Your task to perform on an android device: What's the weather? Image 0: 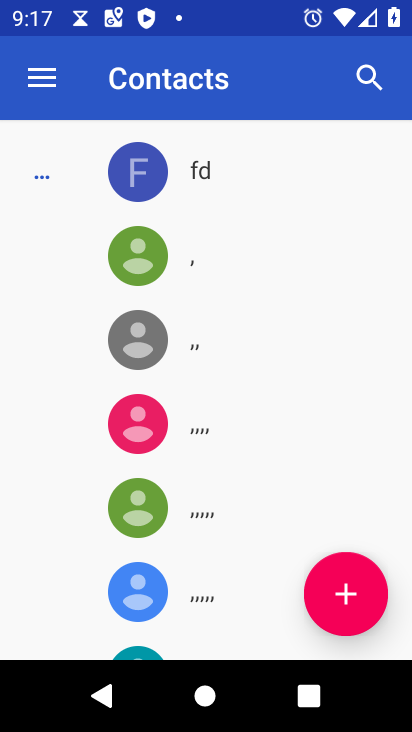
Step 0: press home button
Your task to perform on an android device: What's the weather? Image 1: 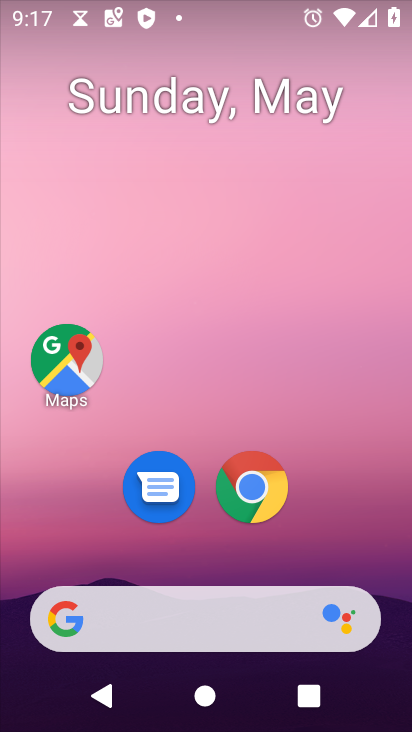
Step 1: click (83, 625)
Your task to perform on an android device: What's the weather? Image 2: 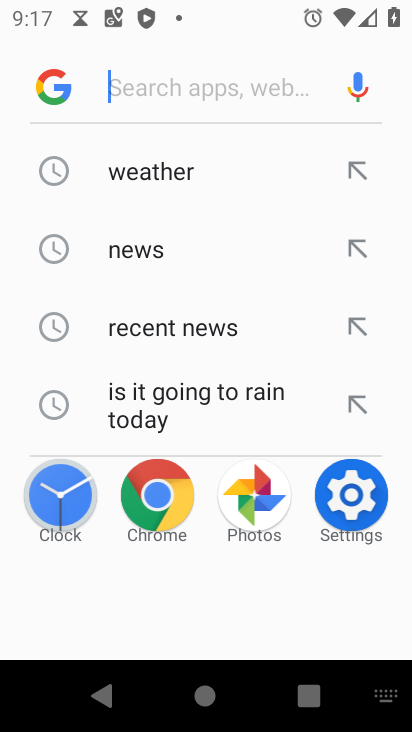
Step 2: click (61, 63)
Your task to perform on an android device: What's the weather? Image 3: 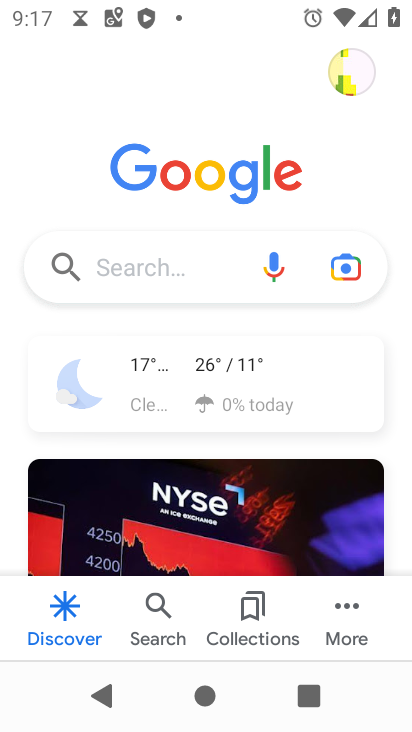
Step 3: click (189, 378)
Your task to perform on an android device: What's the weather? Image 4: 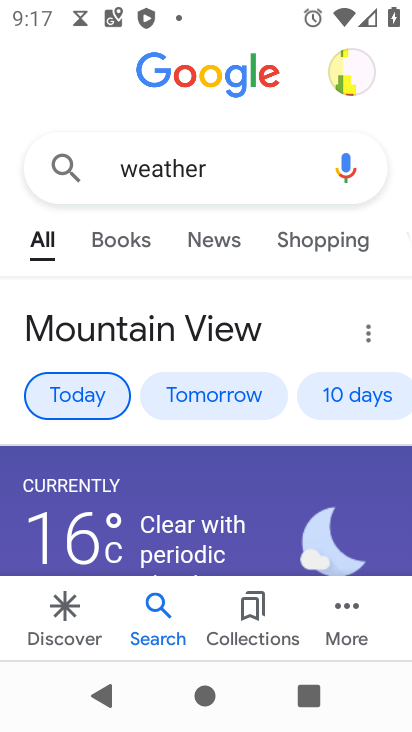
Step 4: task complete